Your task to perform on an android device: check battery use Image 0: 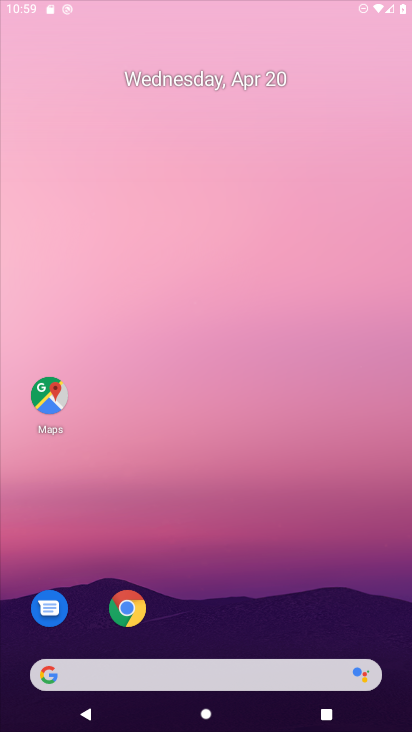
Step 0: click (253, 203)
Your task to perform on an android device: check battery use Image 1: 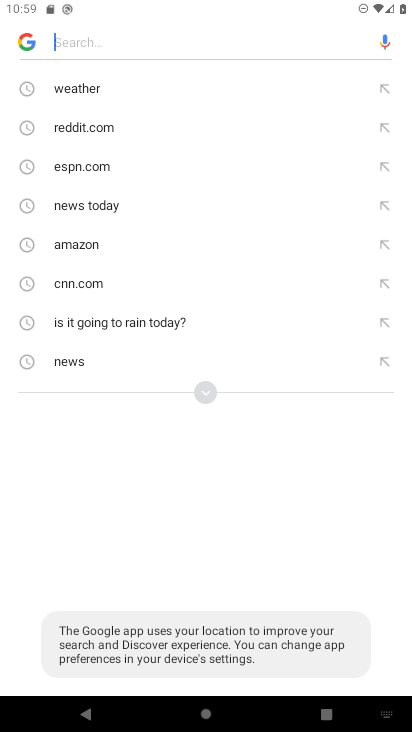
Step 1: press home button
Your task to perform on an android device: check battery use Image 2: 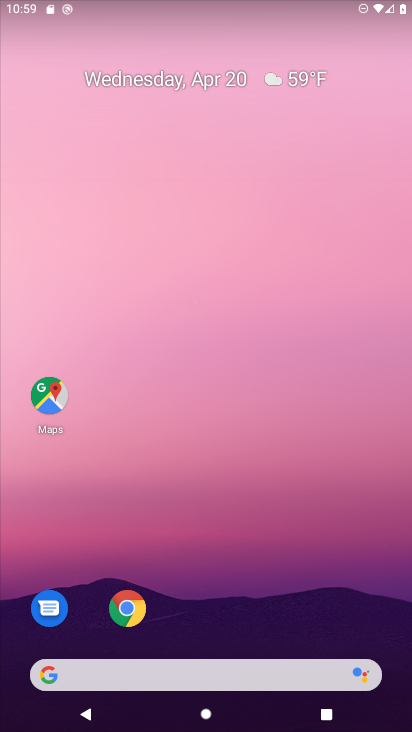
Step 2: drag from (311, 560) to (315, 163)
Your task to perform on an android device: check battery use Image 3: 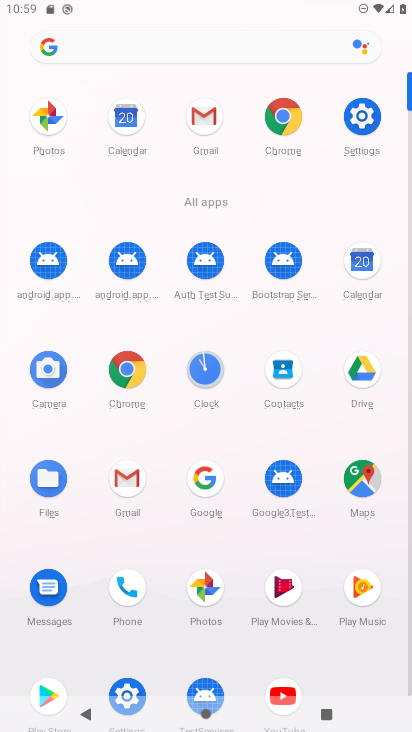
Step 3: click (353, 130)
Your task to perform on an android device: check battery use Image 4: 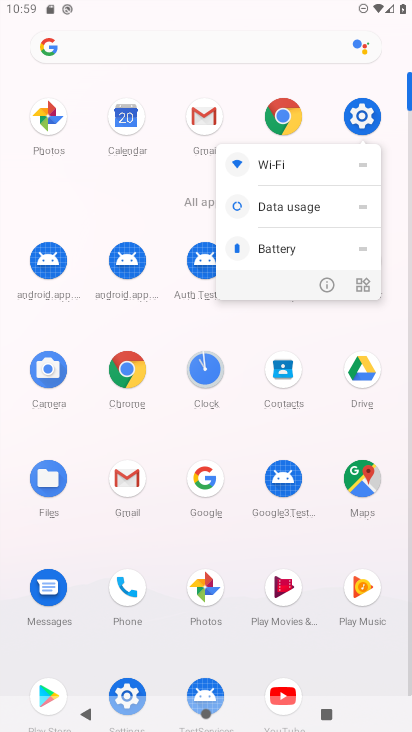
Step 4: click (360, 123)
Your task to perform on an android device: check battery use Image 5: 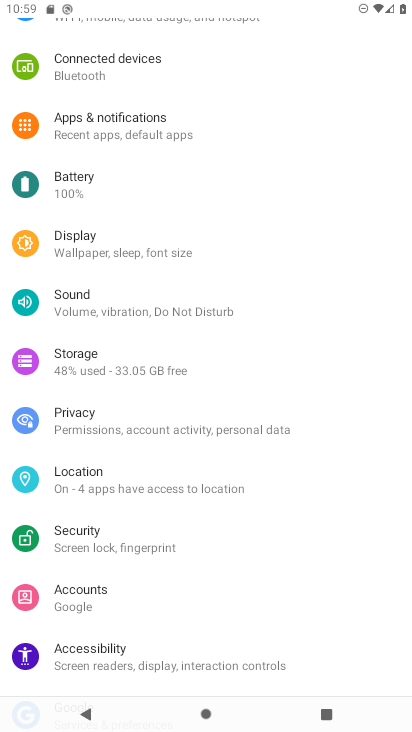
Step 5: click (113, 185)
Your task to perform on an android device: check battery use Image 6: 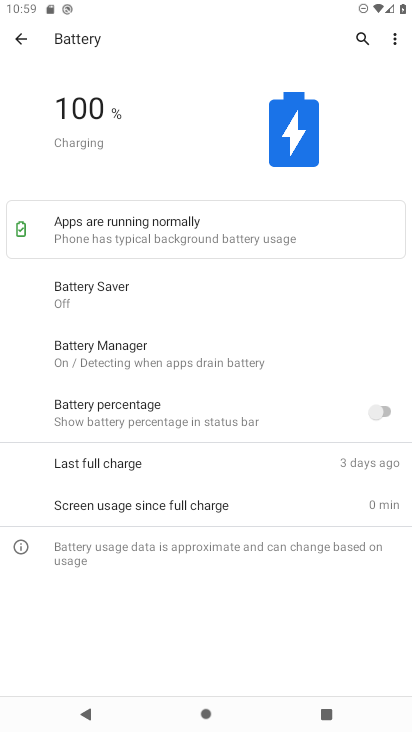
Step 6: task complete